Your task to perform on an android device: Open network settings Image 0: 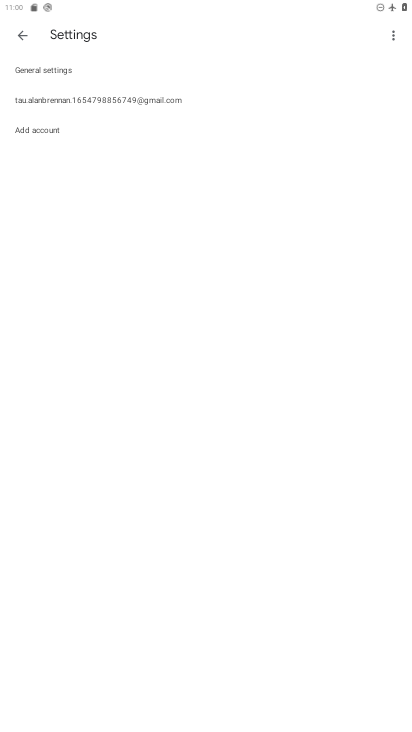
Step 0: press home button
Your task to perform on an android device: Open network settings Image 1: 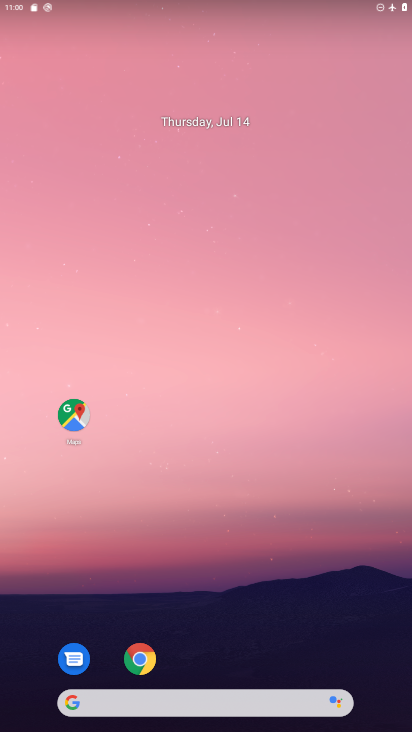
Step 1: drag from (344, 589) to (229, 198)
Your task to perform on an android device: Open network settings Image 2: 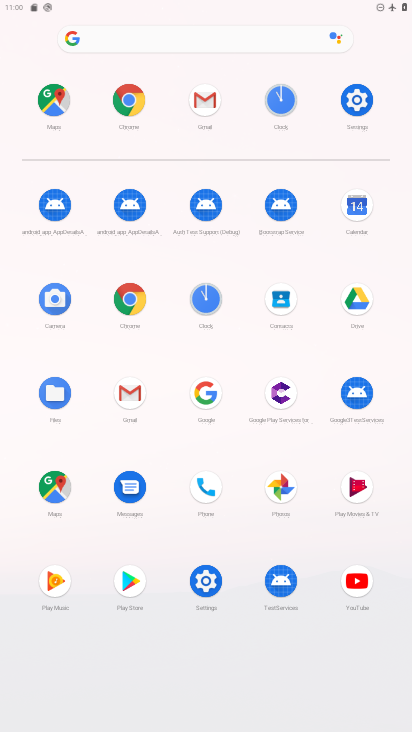
Step 2: click (348, 109)
Your task to perform on an android device: Open network settings Image 3: 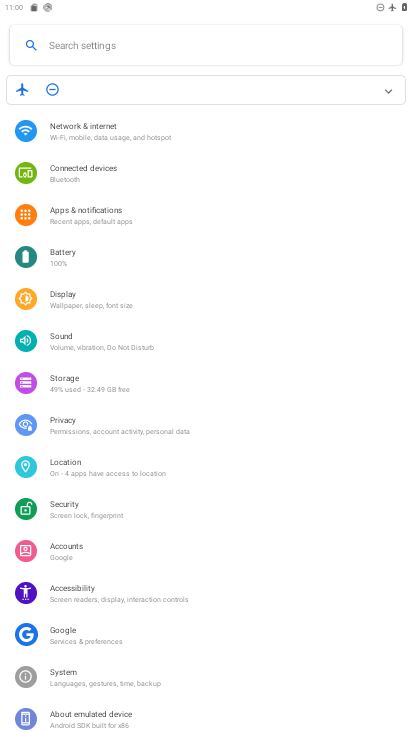
Step 3: click (126, 140)
Your task to perform on an android device: Open network settings Image 4: 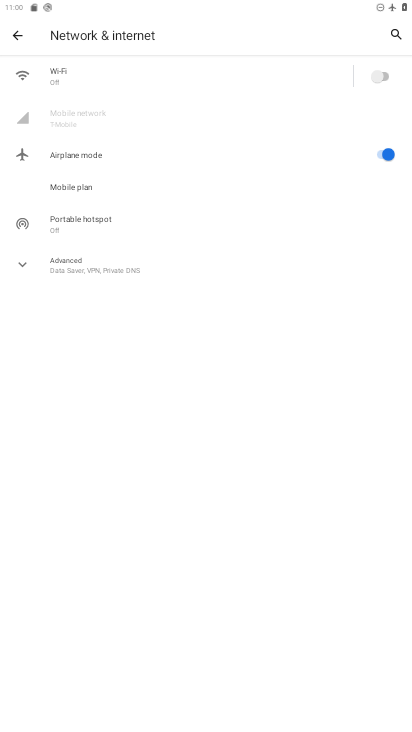
Step 4: task complete